Your task to perform on an android device: turn notification dots off Image 0: 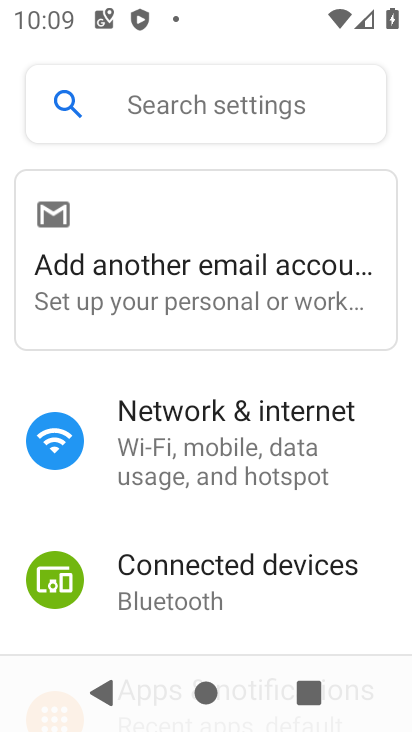
Step 0: drag from (226, 468) to (285, 255)
Your task to perform on an android device: turn notification dots off Image 1: 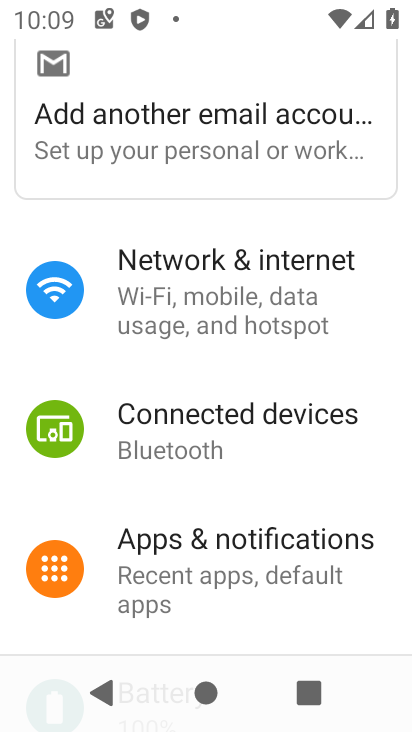
Step 1: click (260, 561)
Your task to perform on an android device: turn notification dots off Image 2: 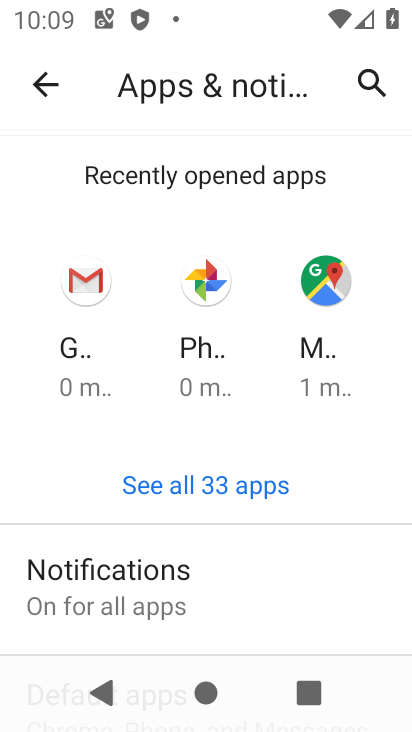
Step 2: drag from (212, 632) to (279, 267)
Your task to perform on an android device: turn notification dots off Image 3: 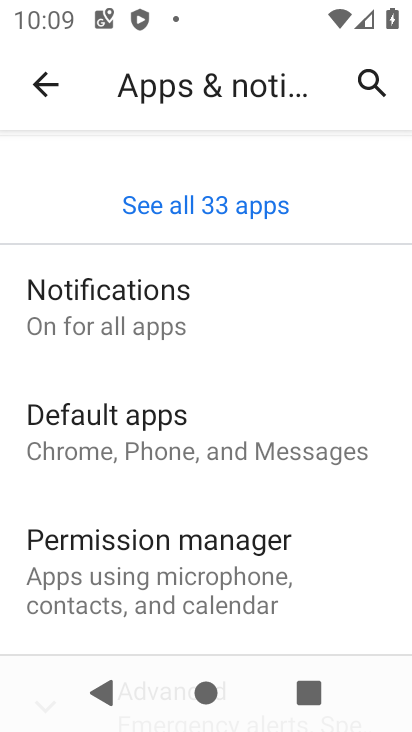
Step 3: drag from (211, 529) to (221, 262)
Your task to perform on an android device: turn notification dots off Image 4: 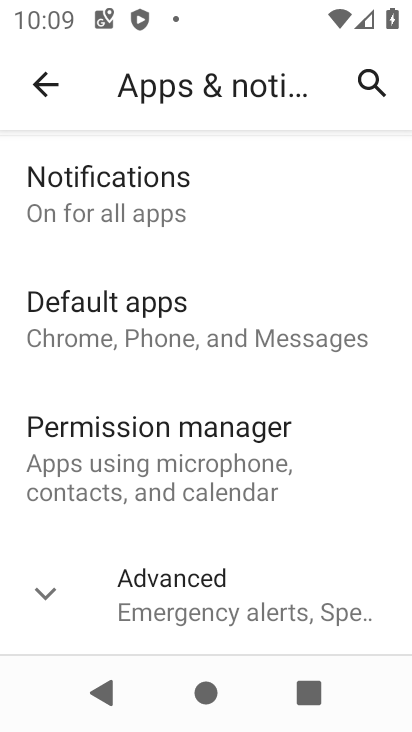
Step 4: click (198, 606)
Your task to perform on an android device: turn notification dots off Image 5: 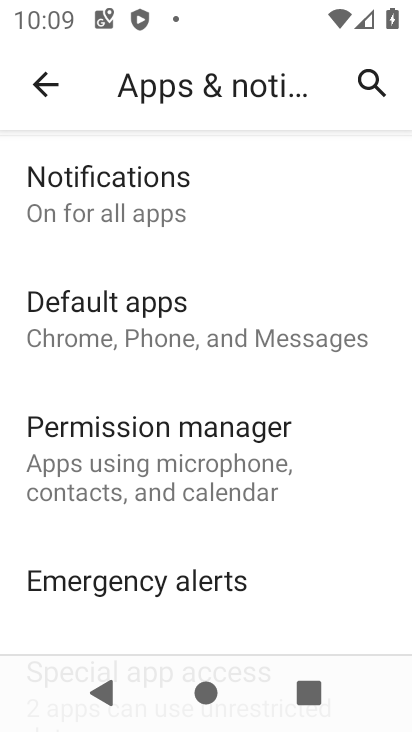
Step 5: drag from (213, 581) to (248, 211)
Your task to perform on an android device: turn notification dots off Image 6: 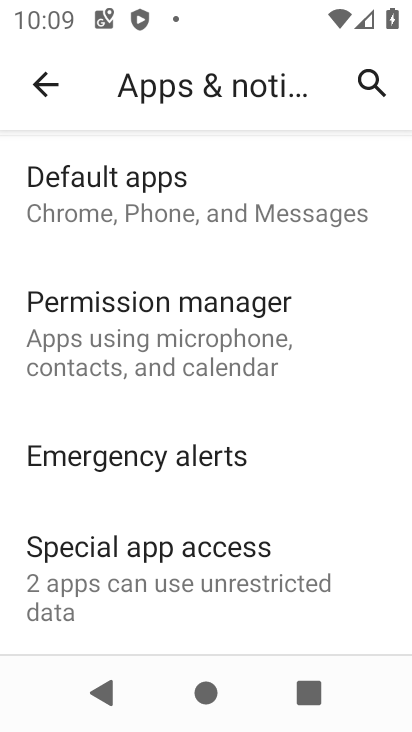
Step 6: drag from (228, 246) to (204, 727)
Your task to perform on an android device: turn notification dots off Image 7: 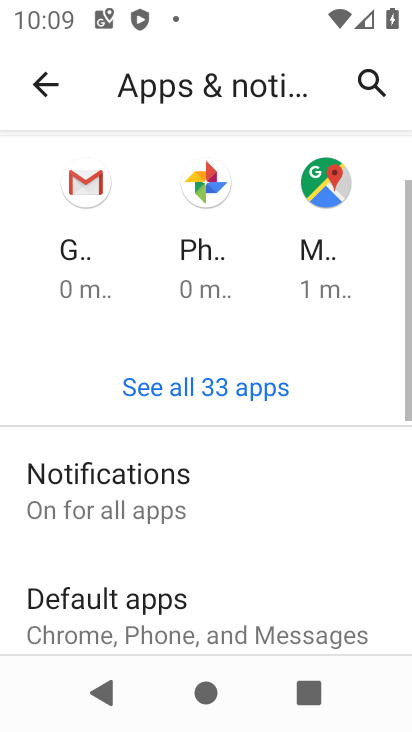
Step 7: click (175, 441)
Your task to perform on an android device: turn notification dots off Image 8: 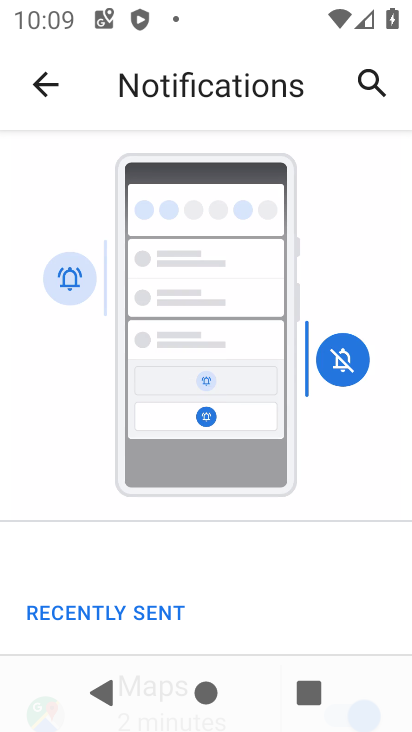
Step 8: drag from (195, 531) to (200, 206)
Your task to perform on an android device: turn notification dots off Image 9: 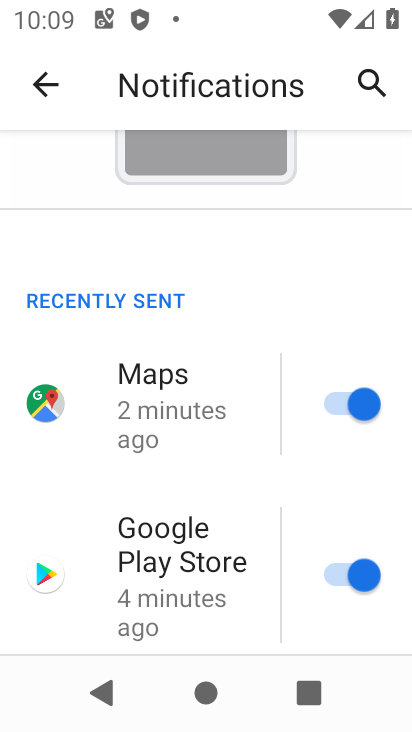
Step 9: drag from (210, 573) to (230, 187)
Your task to perform on an android device: turn notification dots off Image 10: 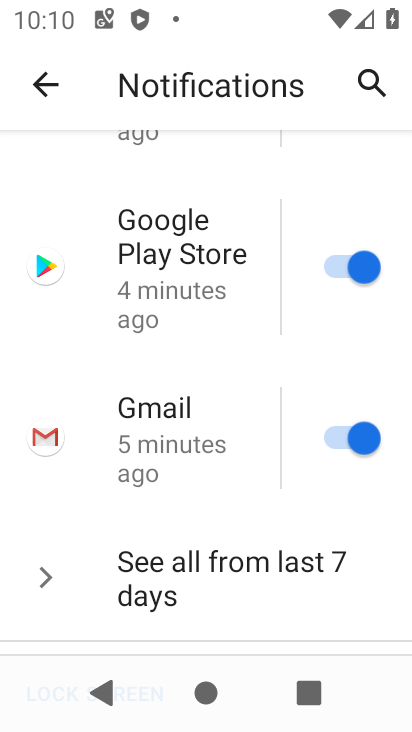
Step 10: drag from (168, 607) to (236, 291)
Your task to perform on an android device: turn notification dots off Image 11: 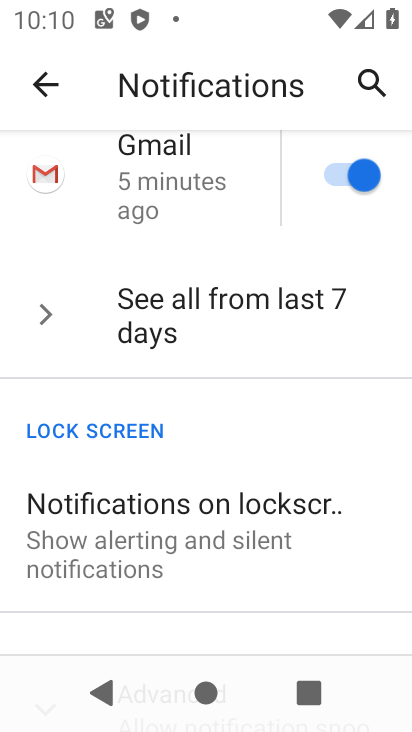
Step 11: drag from (203, 537) to (201, 247)
Your task to perform on an android device: turn notification dots off Image 12: 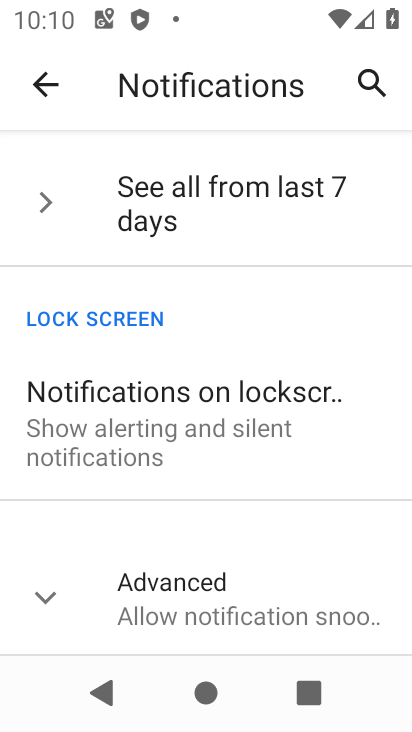
Step 12: click (216, 595)
Your task to perform on an android device: turn notification dots off Image 13: 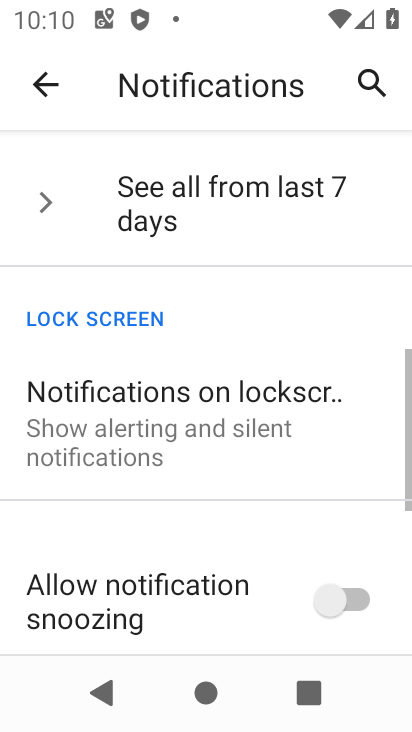
Step 13: drag from (211, 565) to (196, 285)
Your task to perform on an android device: turn notification dots off Image 14: 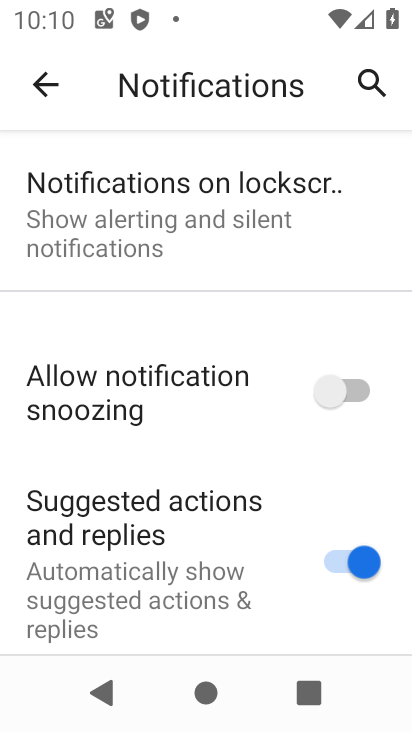
Step 14: drag from (209, 610) to (231, 232)
Your task to perform on an android device: turn notification dots off Image 15: 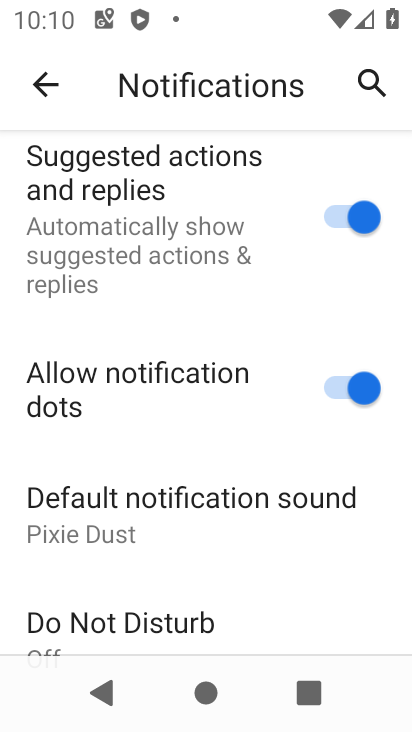
Step 15: click (342, 392)
Your task to perform on an android device: turn notification dots off Image 16: 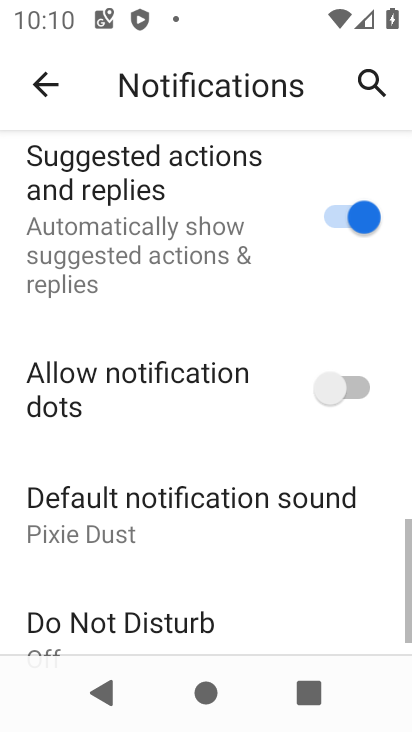
Step 16: task complete